Your task to perform on an android device: delete location history Image 0: 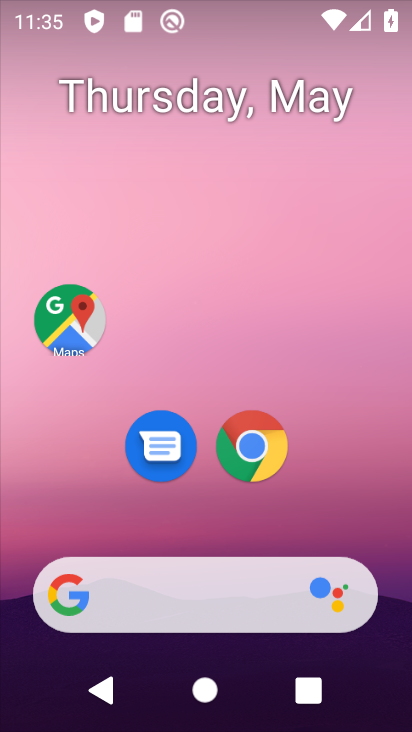
Step 0: click (82, 320)
Your task to perform on an android device: delete location history Image 1: 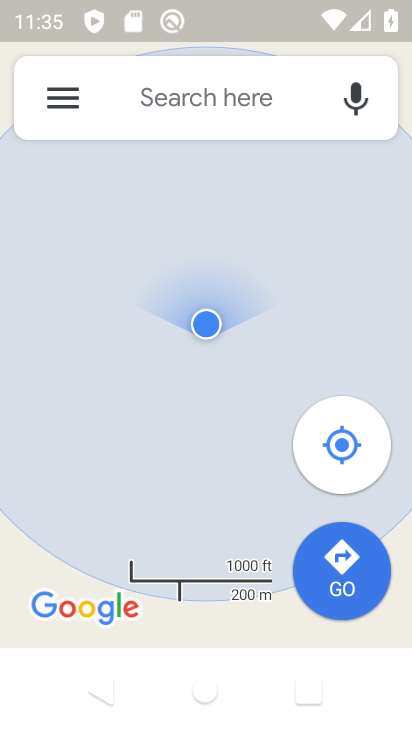
Step 1: click (70, 100)
Your task to perform on an android device: delete location history Image 2: 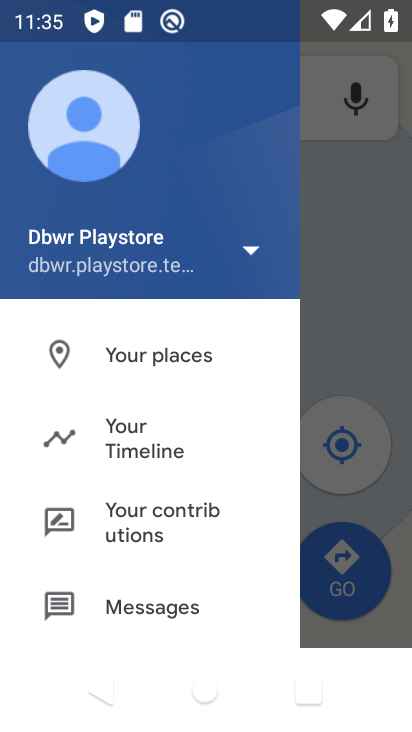
Step 2: click (142, 438)
Your task to perform on an android device: delete location history Image 3: 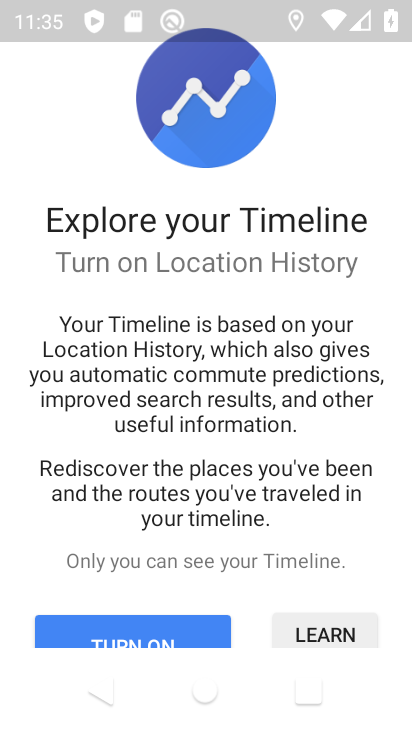
Step 3: drag from (180, 488) to (182, 320)
Your task to perform on an android device: delete location history Image 4: 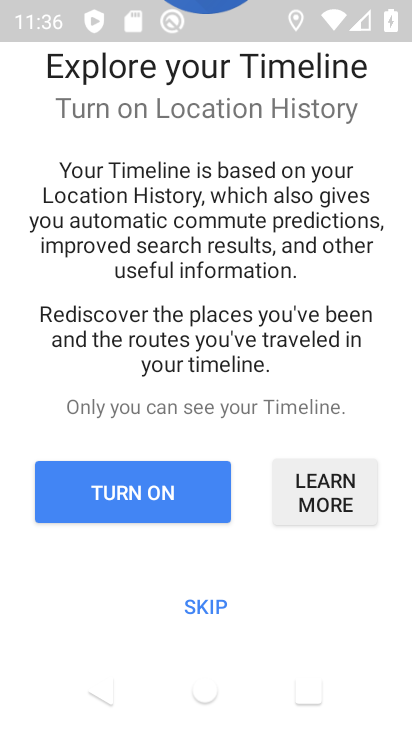
Step 4: click (200, 596)
Your task to perform on an android device: delete location history Image 5: 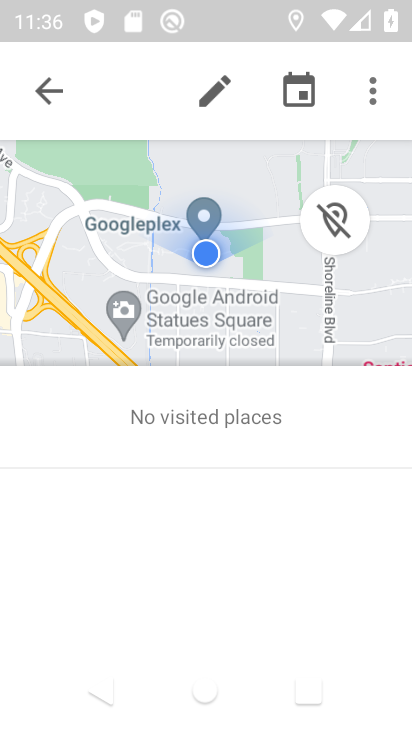
Step 5: click (366, 96)
Your task to perform on an android device: delete location history Image 6: 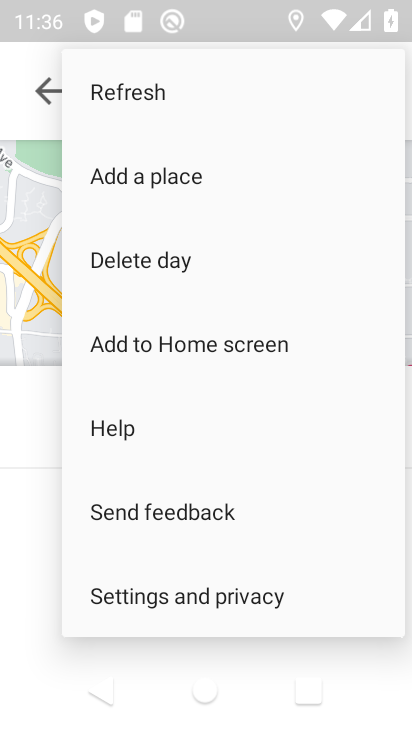
Step 6: click (268, 593)
Your task to perform on an android device: delete location history Image 7: 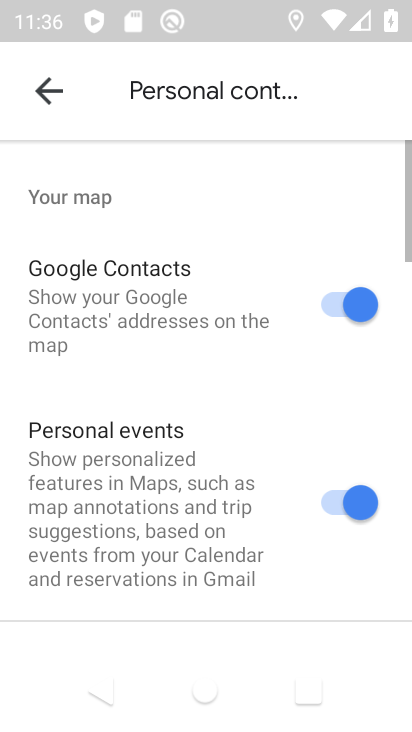
Step 7: drag from (218, 449) to (188, 136)
Your task to perform on an android device: delete location history Image 8: 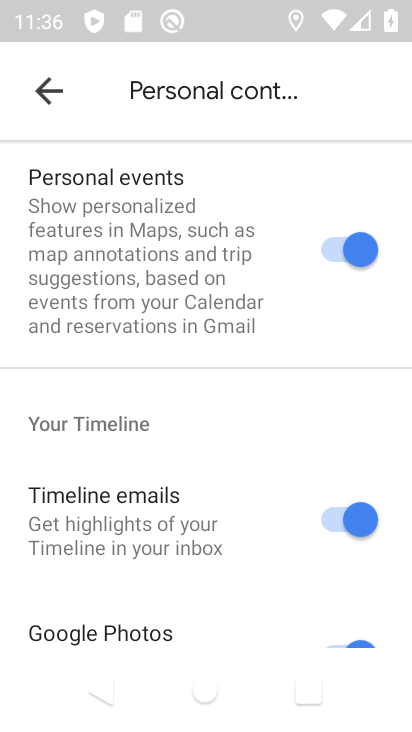
Step 8: drag from (177, 511) to (184, 164)
Your task to perform on an android device: delete location history Image 9: 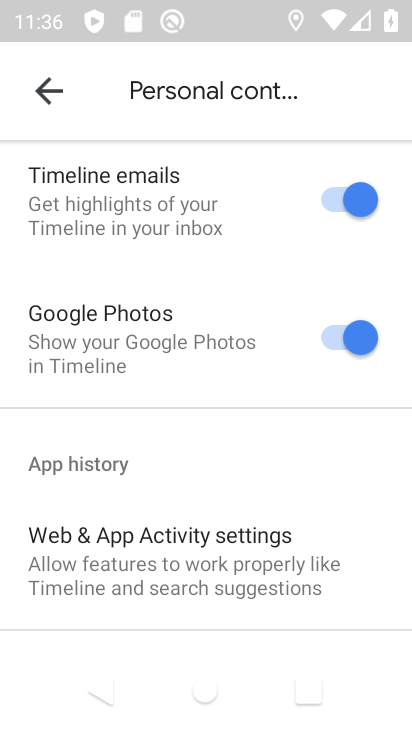
Step 9: drag from (206, 472) to (222, 200)
Your task to perform on an android device: delete location history Image 10: 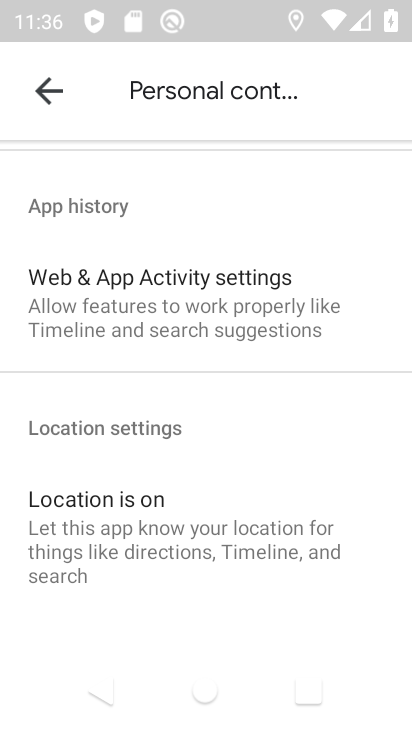
Step 10: drag from (202, 504) to (211, 197)
Your task to perform on an android device: delete location history Image 11: 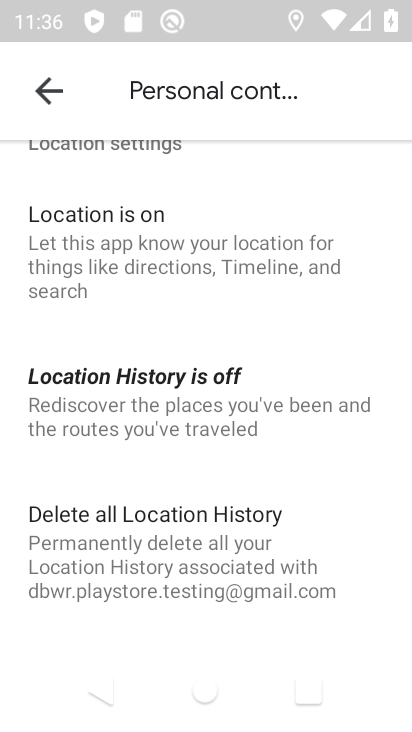
Step 11: click (192, 546)
Your task to perform on an android device: delete location history Image 12: 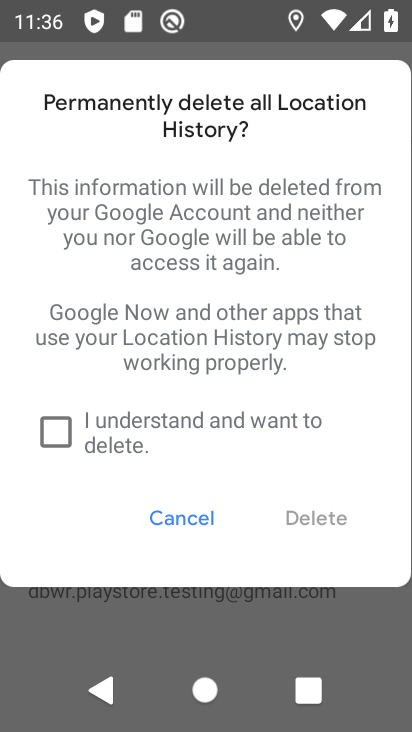
Step 12: click (59, 429)
Your task to perform on an android device: delete location history Image 13: 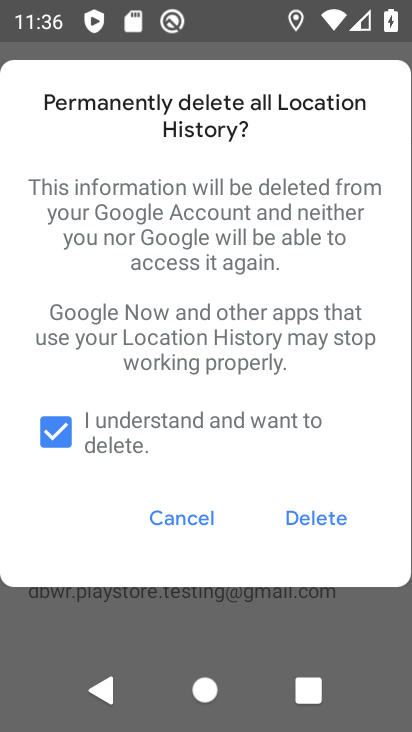
Step 13: click (314, 512)
Your task to perform on an android device: delete location history Image 14: 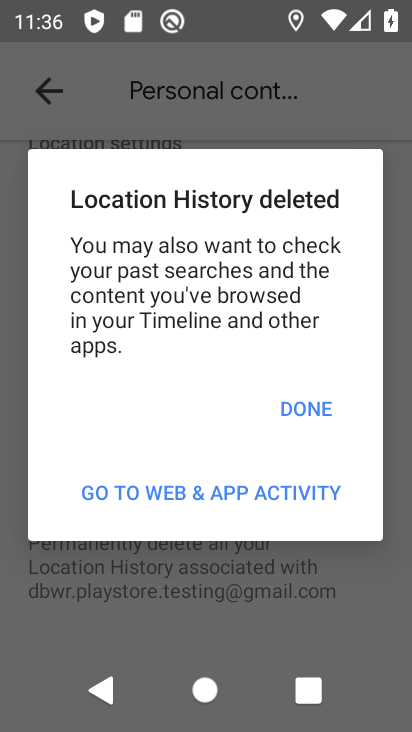
Step 14: click (307, 410)
Your task to perform on an android device: delete location history Image 15: 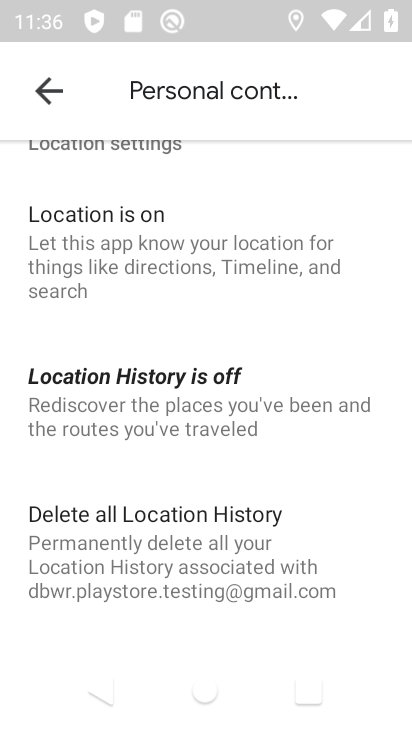
Step 15: task complete